Your task to perform on an android device: Is it going to rain this weekend? Image 0: 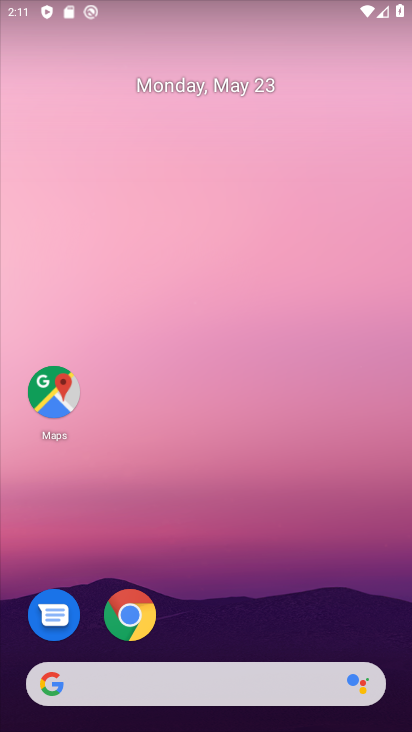
Step 0: click (134, 684)
Your task to perform on an android device: Is it going to rain this weekend? Image 1: 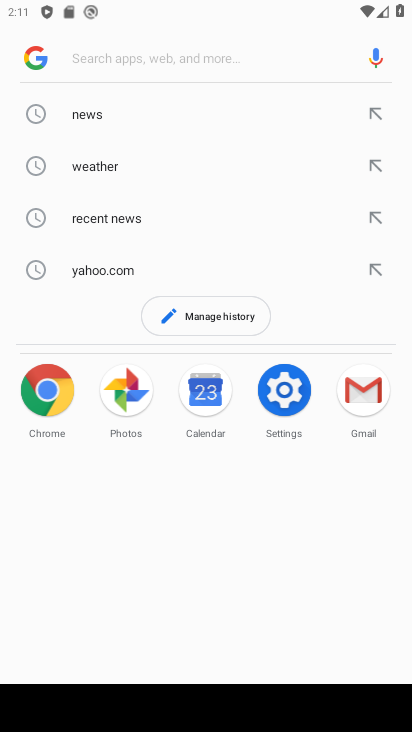
Step 1: click (82, 169)
Your task to perform on an android device: Is it going to rain this weekend? Image 2: 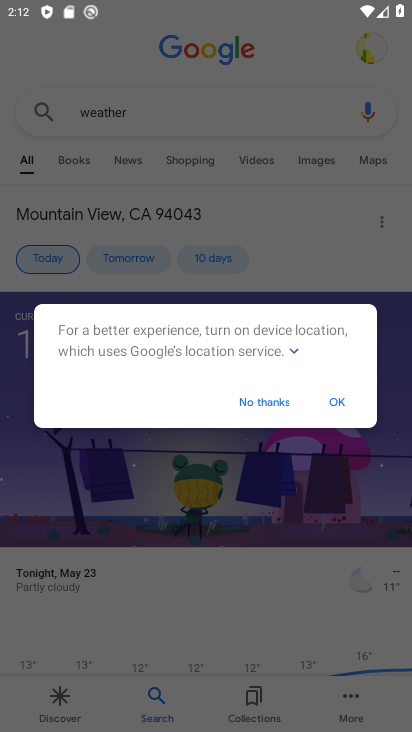
Step 2: click (250, 406)
Your task to perform on an android device: Is it going to rain this weekend? Image 3: 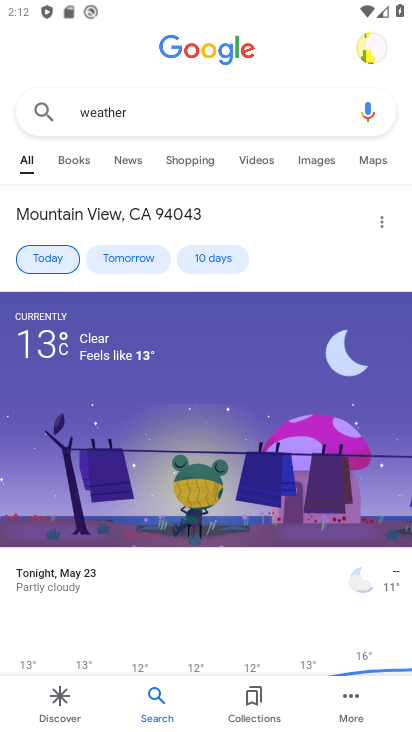
Step 3: click (217, 258)
Your task to perform on an android device: Is it going to rain this weekend? Image 4: 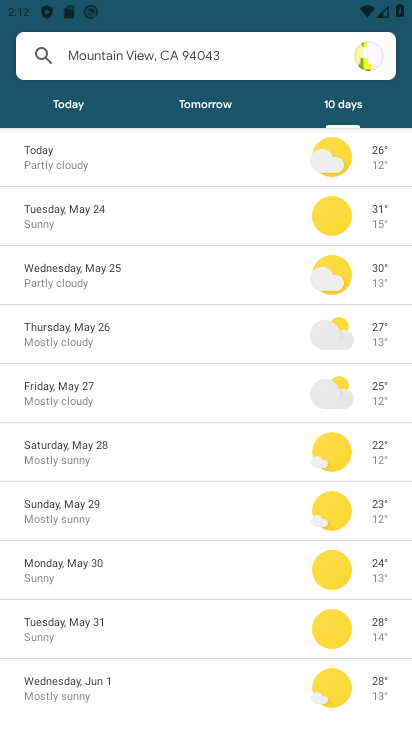
Step 4: task complete